Your task to perform on an android device: delete location history Image 0: 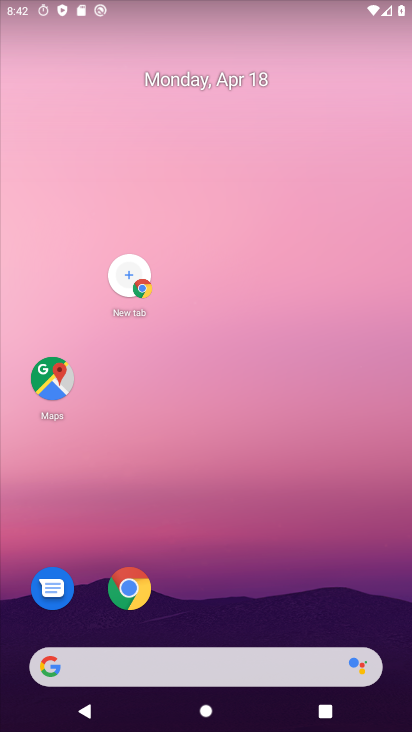
Step 0: drag from (216, 520) to (294, 100)
Your task to perform on an android device: delete location history Image 1: 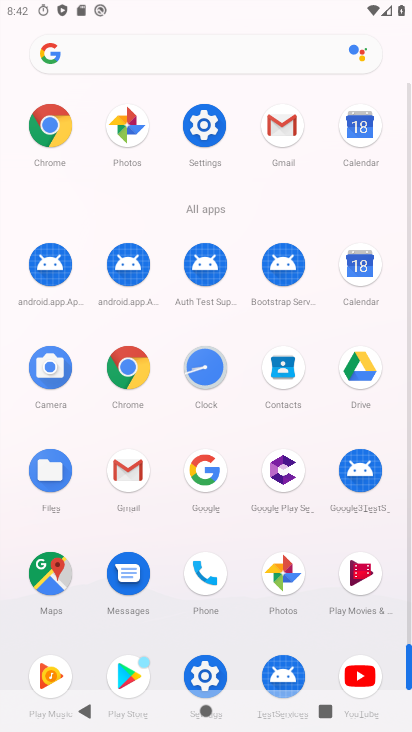
Step 1: drag from (407, 406) to (374, 203)
Your task to perform on an android device: delete location history Image 2: 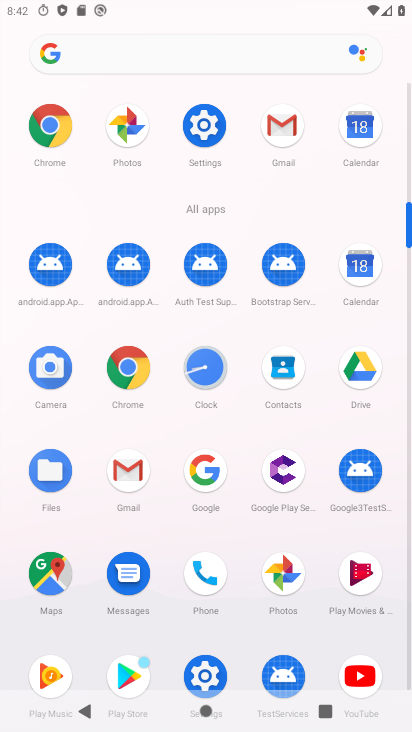
Step 2: drag from (393, 661) to (402, 422)
Your task to perform on an android device: delete location history Image 3: 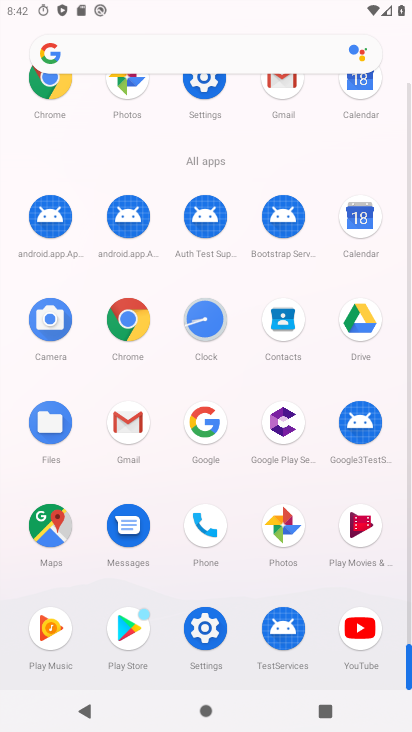
Step 3: click (66, 542)
Your task to perform on an android device: delete location history Image 4: 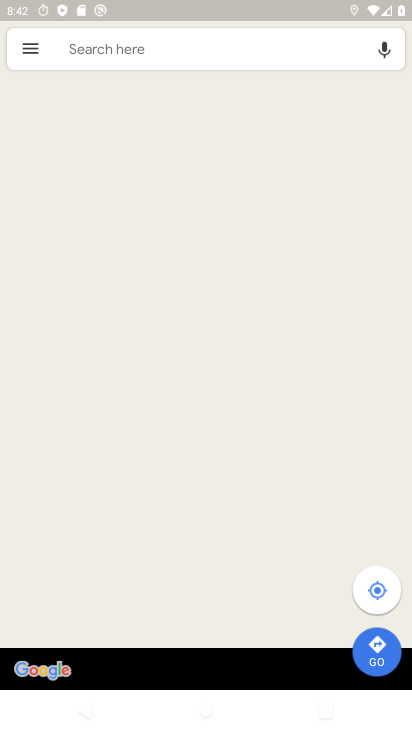
Step 4: click (22, 43)
Your task to perform on an android device: delete location history Image 5: 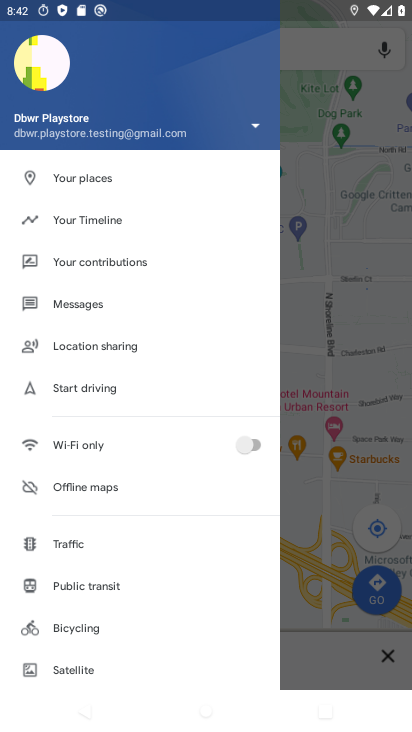
Step 5: click (80, 219)
Your task to perform on an android device: delete location history Image 6: 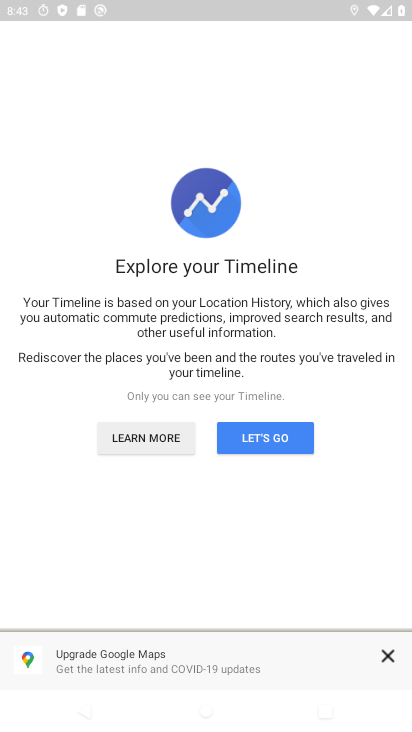
Step 6: click (244, 439)
Your task to perform on an android device: delete location history Image 7: 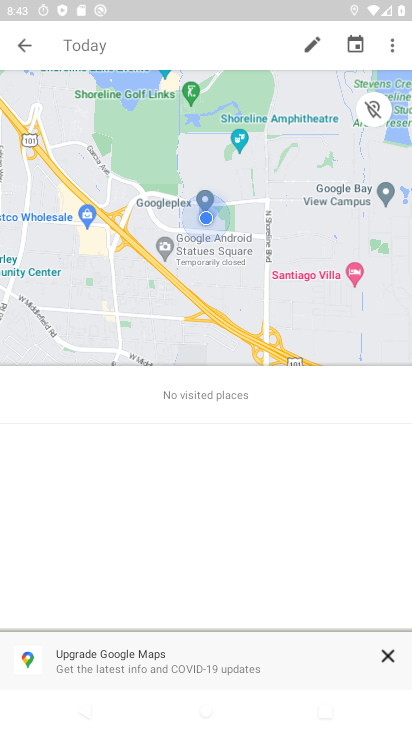
Step 7: click (393, 41)
Your task to perform on an android device: delete location history Image 8: 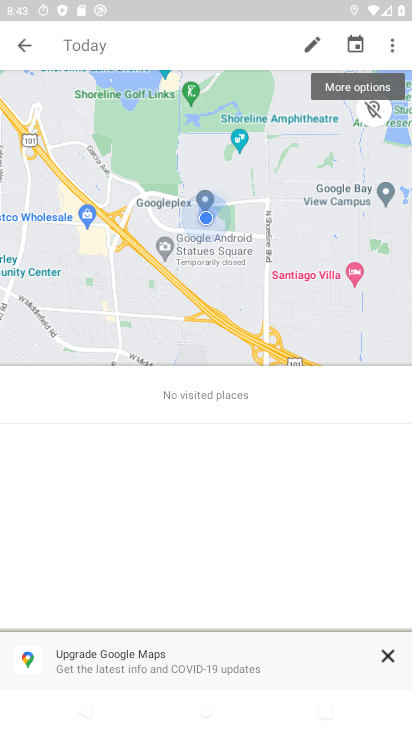
Step 8: click (391, 36)
Your task to perform on an android device: delete location history Image 9: 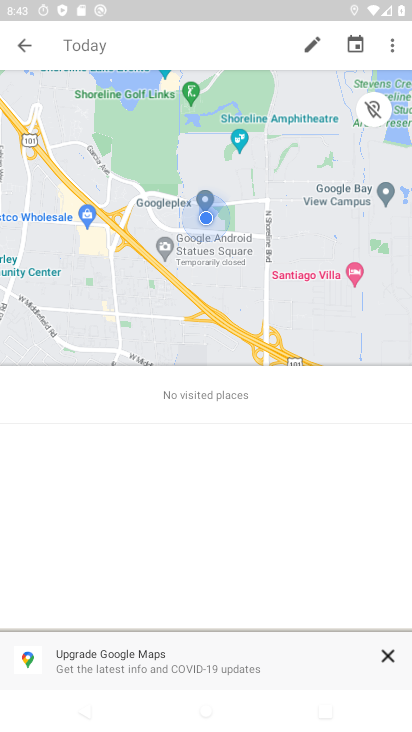
Step 9: click (398, 46)
Your task to perform on an android device: delete location history Image 10: 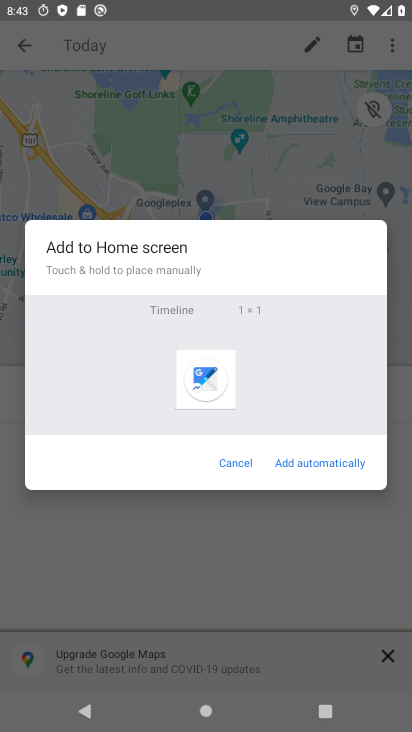
Step 10: click (405, 35)
Your task to perform on an android device: delete location history Image 11: 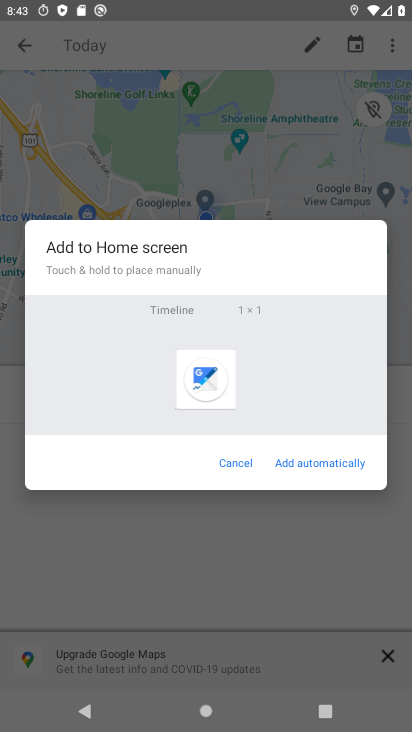
Step 11: click (400, 40)
Your task to perform on an android device: delete location history Image 12: 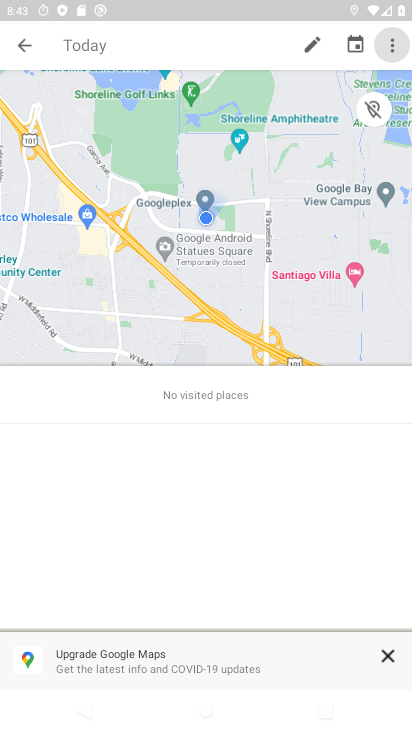
Step 12: click (231, 451)
Your task to perform on an android device: delete location history Image 13: 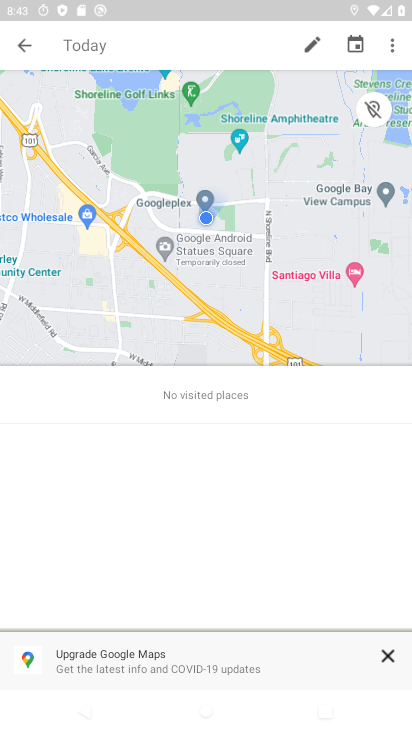
Step 13: click (384, 46)
Your task to perform on an android device: delete location history Image 14: 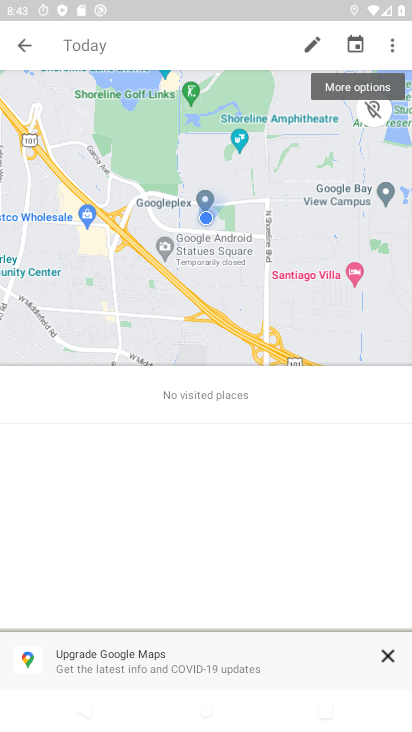
Step 14: click (394, 54)
Your task to perform on an android device: delete location history Image 15: 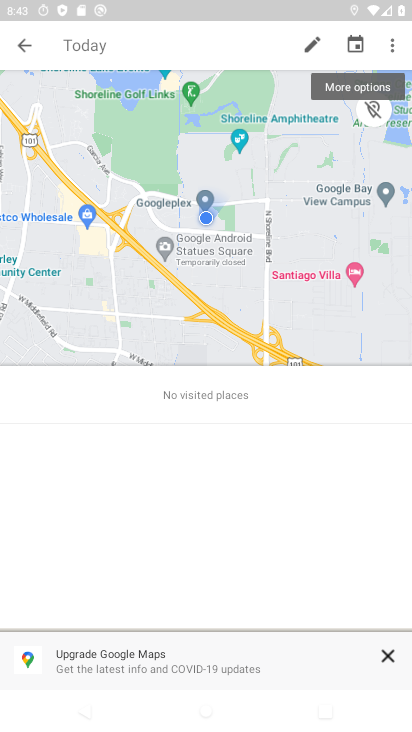
Step 15: click (394, 54)
Your task to perform on an android device: delete location history Image 16: 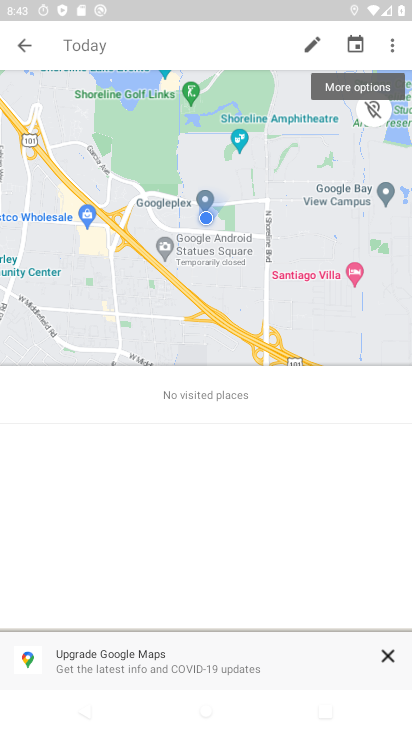
Step 16: click (394, 54)
Your task to perform on an android device: delete location history Image 17: 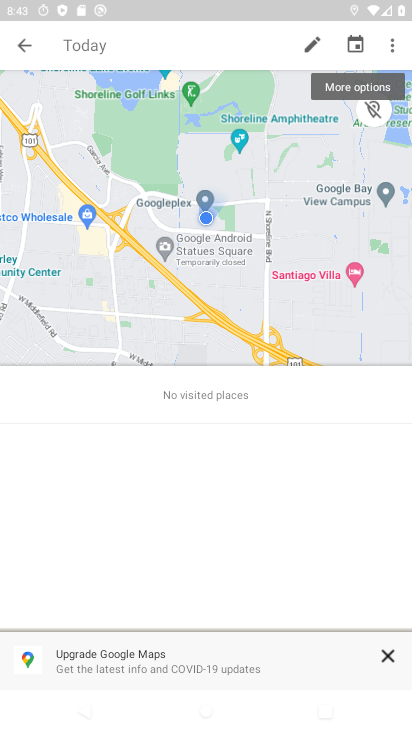
Step 17: click (387, 46)
Your task to perform on an android device: delete location history Image 18: 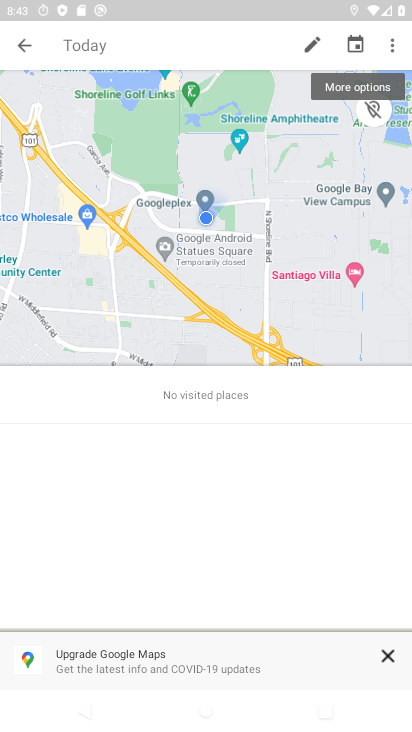
Step 18: click (387, 44)
Your task to perform on an android device: delete location history Image 19: 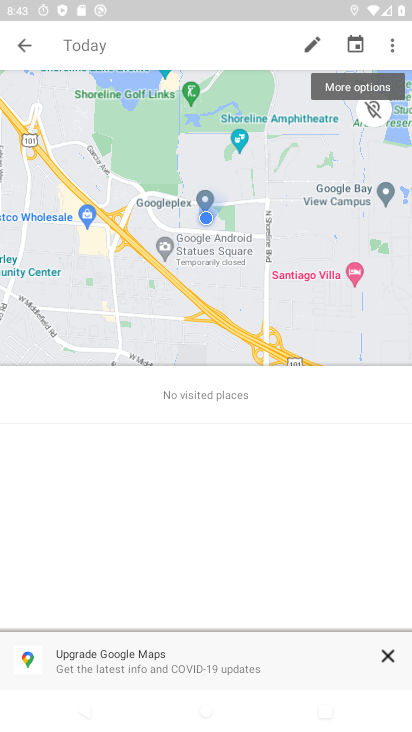
Step 19: click (387, 43)
Your task to perform on an android device: delete location history Image 20: 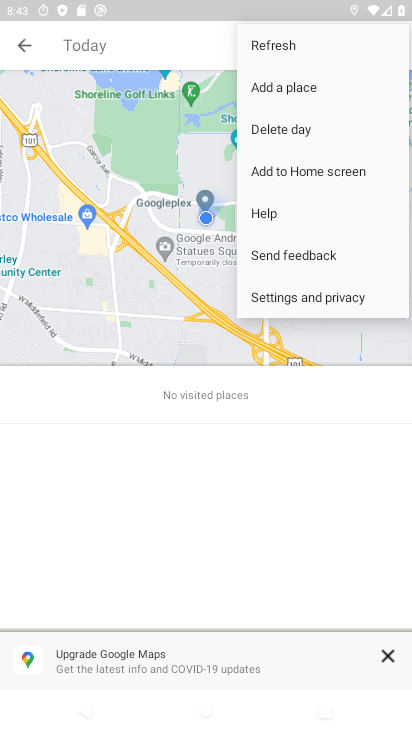
Step 20: click (273, 300)
Your task to perform on an android device: delete location history Image 21: 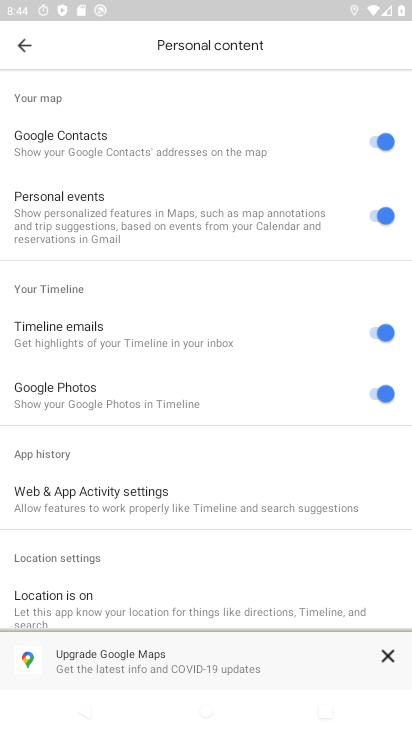
Step 21: drag from (262, 482) to (210, 131)
Your task to perform on an android device: delete location history Image 22: 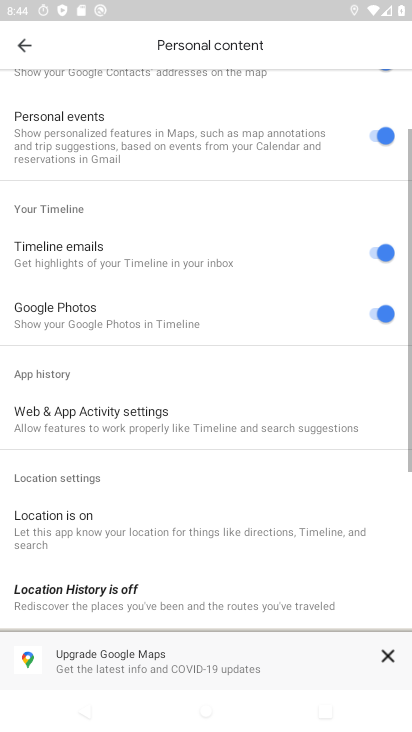
Step 22: drag from (189, 573) to (235, 138)
Your task to perform on an android device: delete location history Image 23: 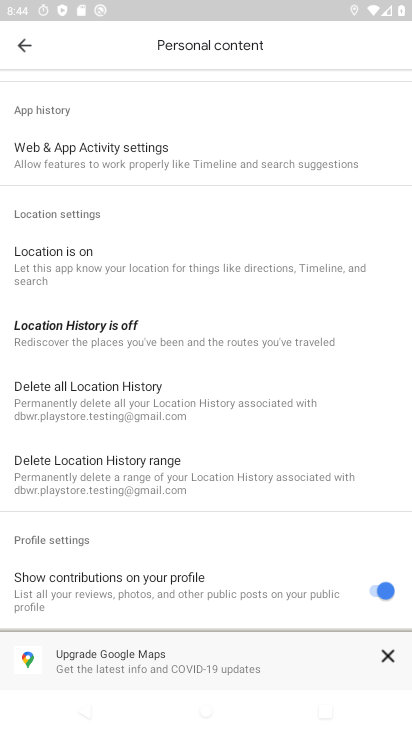
Step 23: click (95, 385)
Your task to perform on an android device: delete location history Image 24: 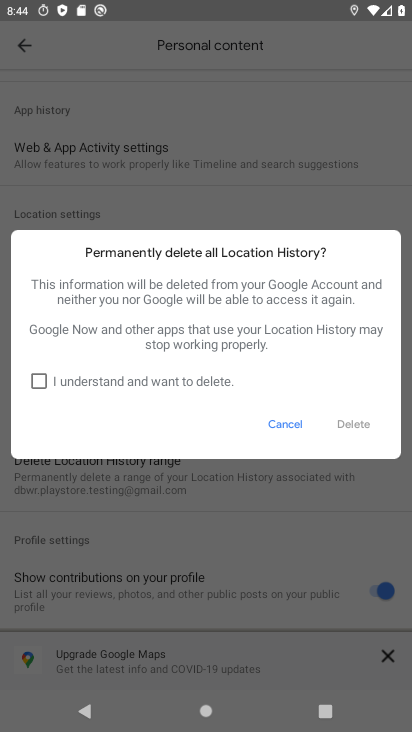
Step 24: click (38, 386)
Your task to perform on an android device: delete location history Image 25: 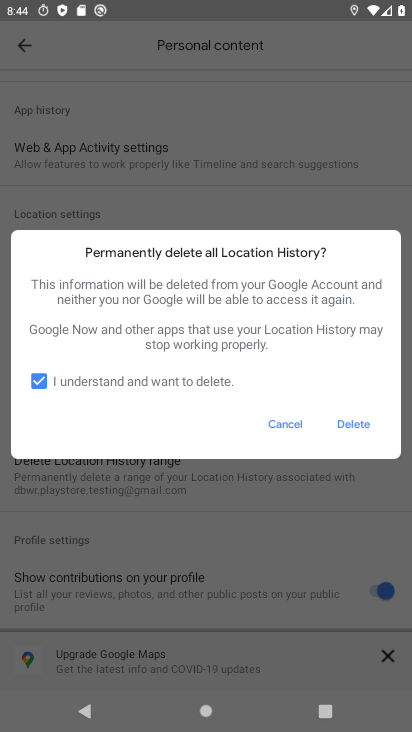
Step 25: click (360, 433)
Your task to perform on an android device: delete location history Image 26: 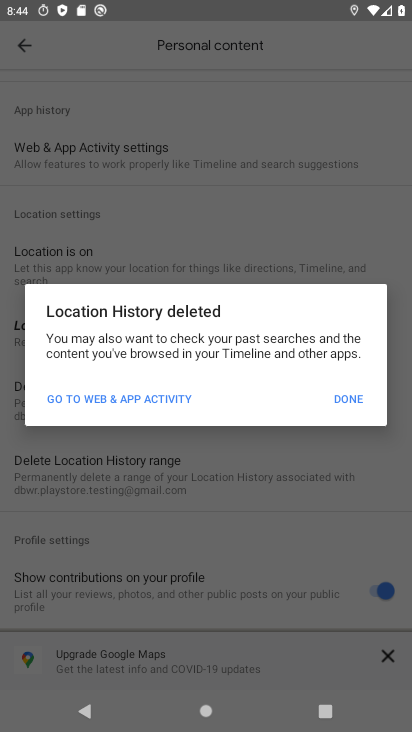
Step 26: click (358, 401)
Your task to perform on an android device: delete location history Image 27: 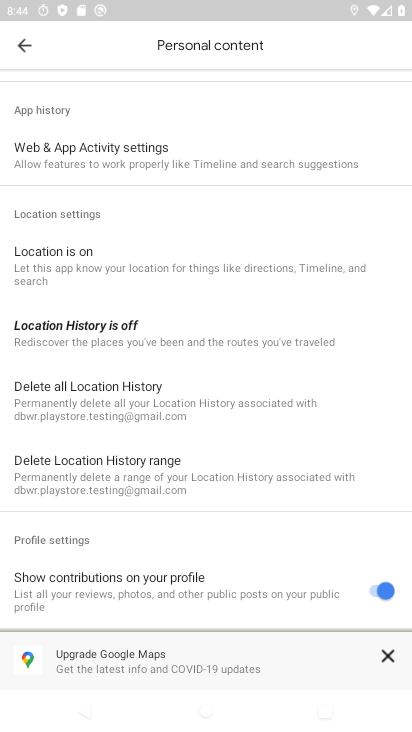
Step 27: task complete